Your task to perform on an android device: set the timer Image 0: 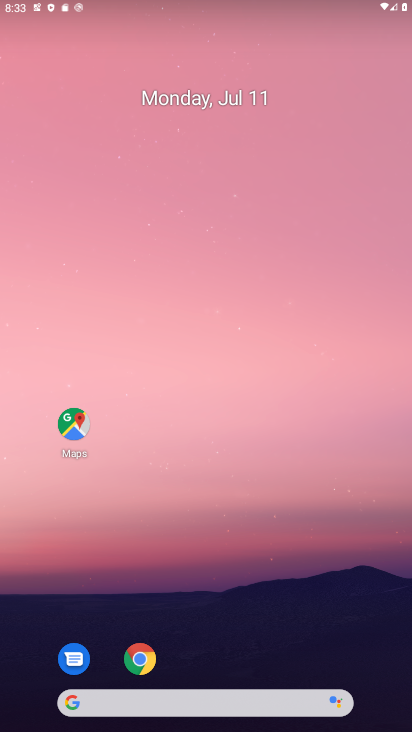
Step 0: drag from (228, 638) to (313, 155)
Your task to perform on an android device: set the timer Image 1: 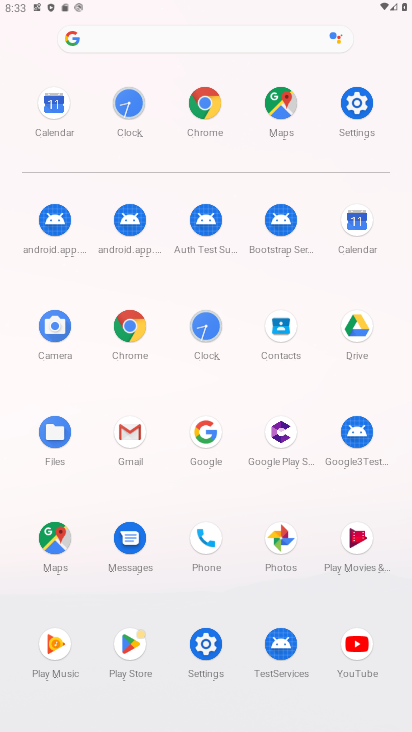
Step 1: click (207, 334)
Your task to perform on an android device: set the timer Image 2: 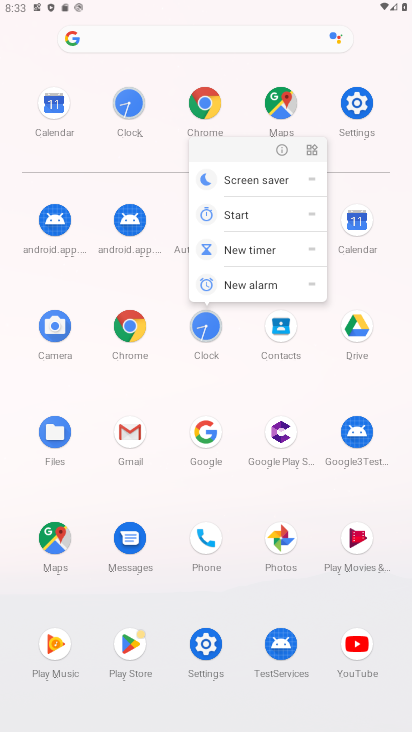
Step 2: click (279, 150)
Your task to perform on an android device: set the timer Image 3: 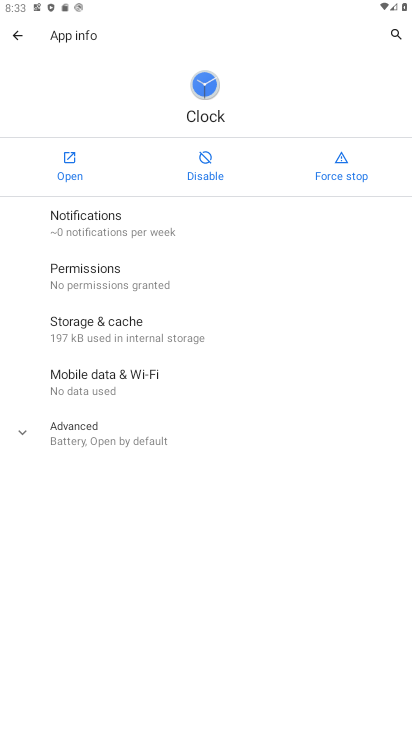
Step 3: click (71, 161)
Your task to perform on an android device: set the timer Image 4: 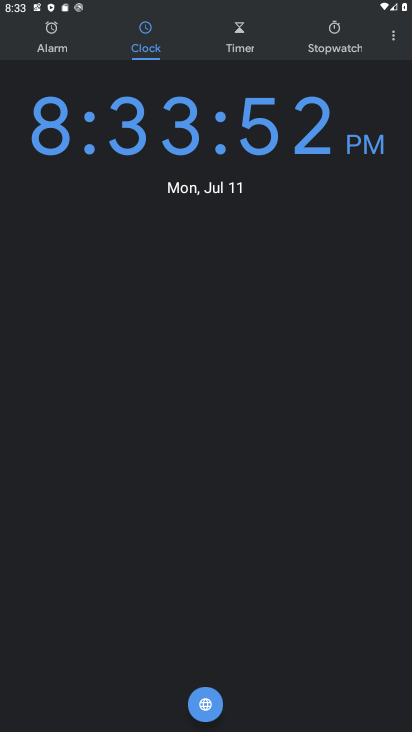
Step 4: drag from (278, 538) to (278, 234)
Your task to perform on an android device: set the timer Image 5: 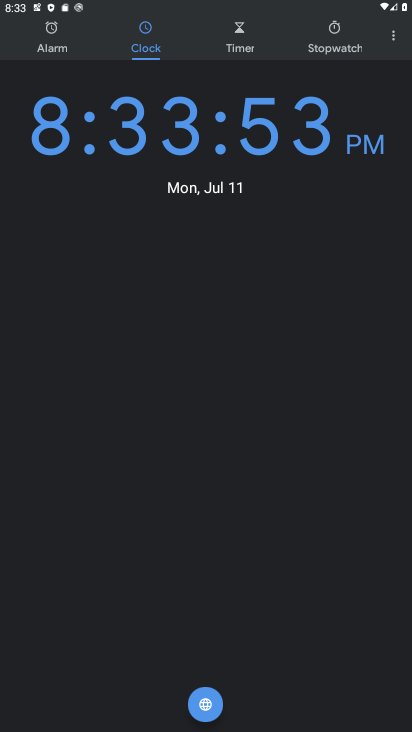
Step 5: click (409, 43)
Your task to perform on an android device: set the timer Image 6: 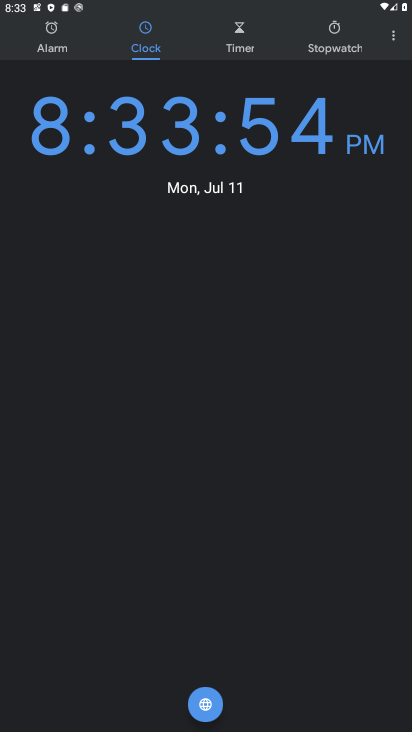
Step 6: click (401, 33)
Your task to perform on an android device: set the timer Image 7: 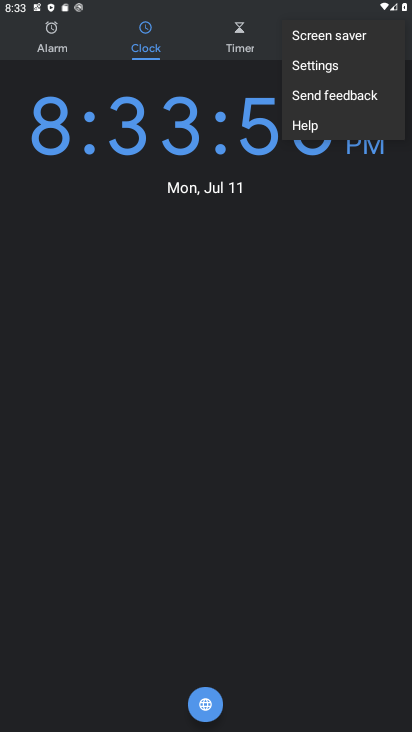
Step 7: click (315, 72)
Your task to perform on an android device: set the timer Image 8: 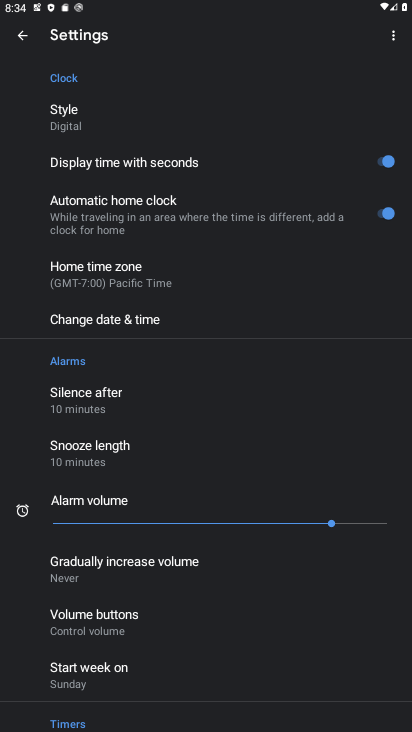
Step 8: click (29, 30)
Your task to perform on an android device: set the timer Image 9: 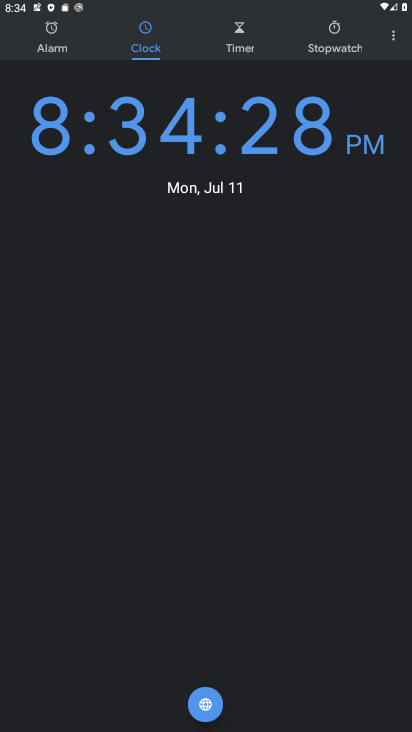
Step 9: click (230, 30)
Your task to perform on an android device: set the timer Image 10: 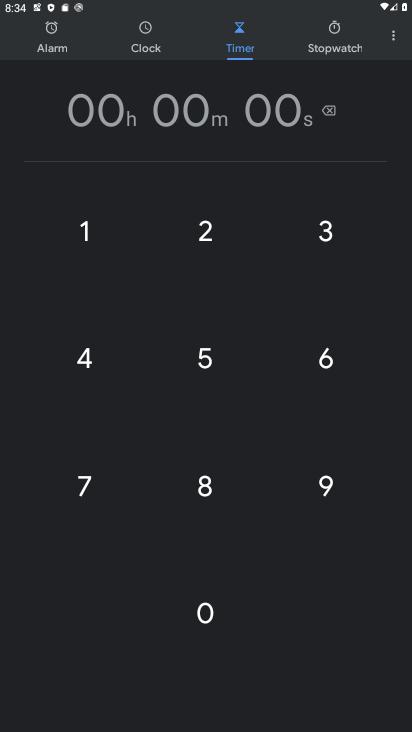
Step 10: click (217, 227)
Your task to perform on an android device: set the timer Image 11: 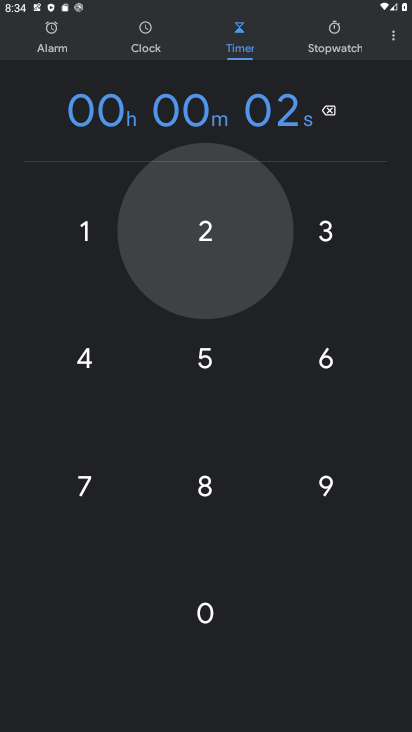
Step 11: click (335, 216)
Your task to perform on an android device: set the timer Image 12: 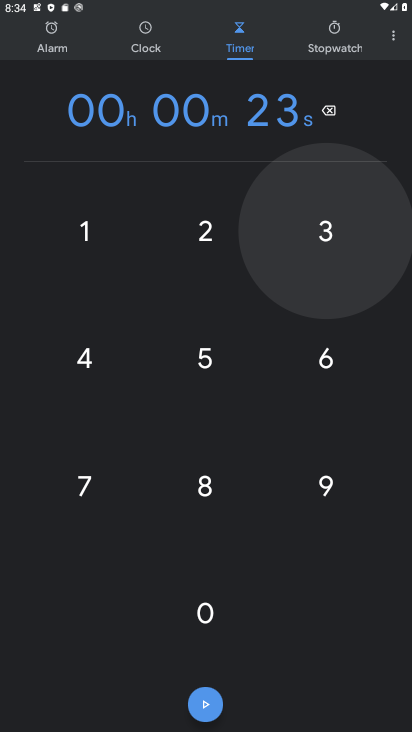
Step 12: click (335, 220)
Your task to perform on an android device: set the timer Image 13: 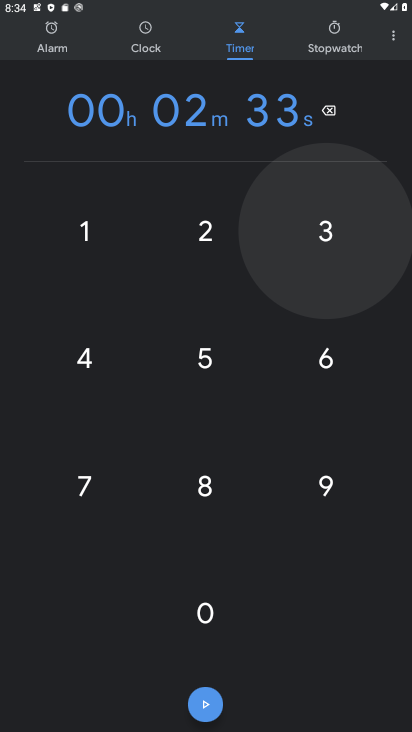
Step 13: click (323, 332)
Your task to perform on an android device: set the timer Image 14: 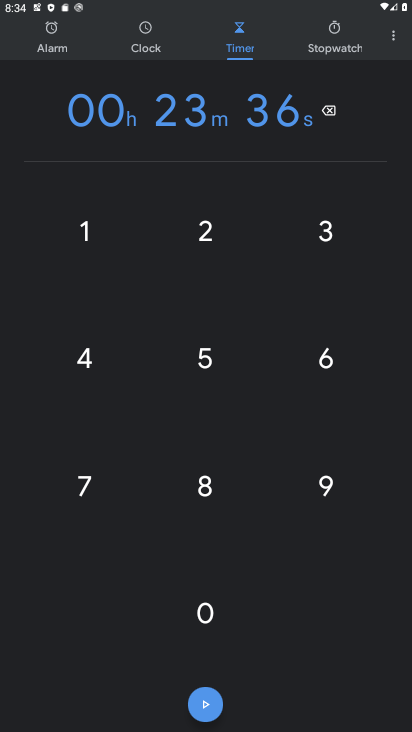
Step 14: click (200, 702)
Your task to perform on an android device: set the timer Image 15: 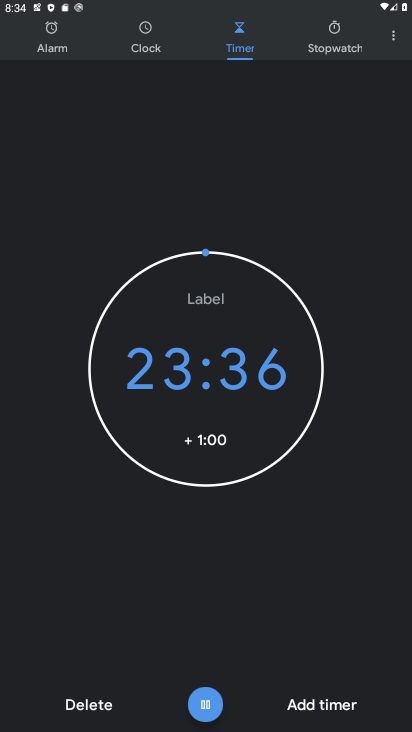
Step 15: task complete